Your task to perform on an android device: change notifications settings Image 0: 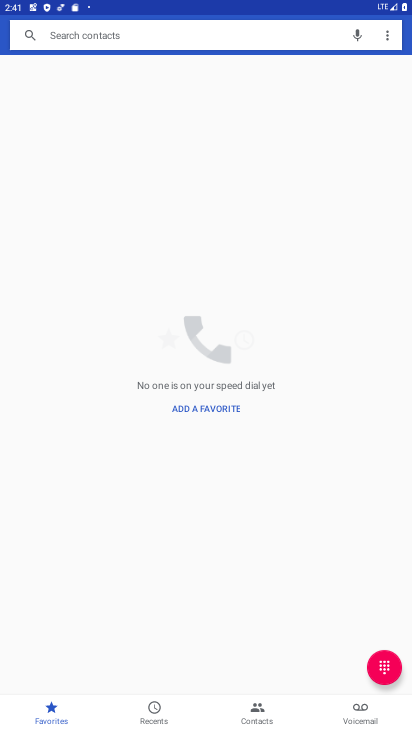
Step 0: press home button
Your task to perform on an android device: change notifications settings Image 1: 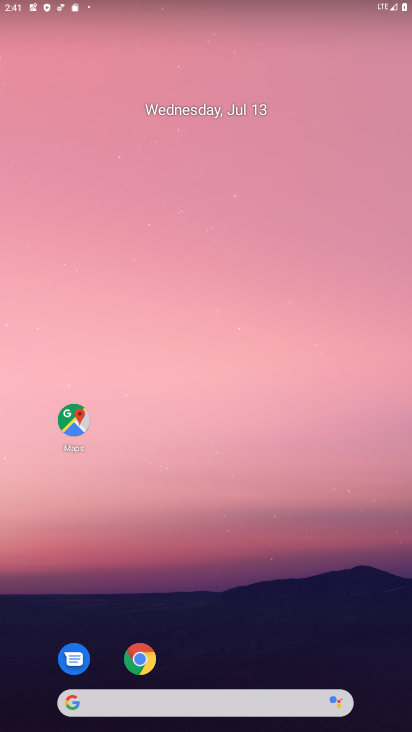
Step 1: drag from (387, 666) to (336, 84)
Your task to perform on an android device: change notifications settings Image 2: 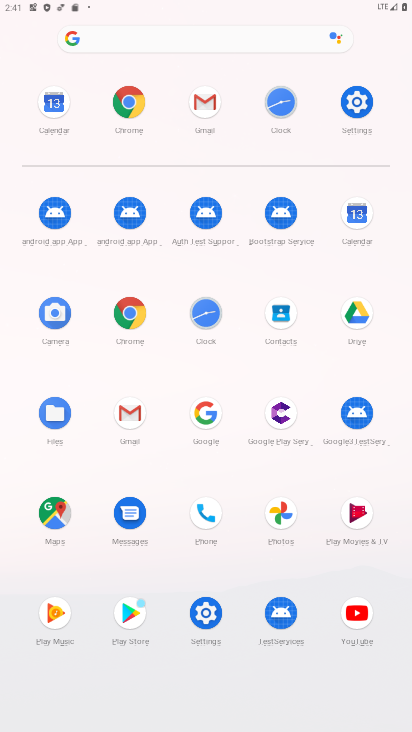
Step 2: click (206, 613)
Your task to perform on an android device: change notifications settings Image 3: 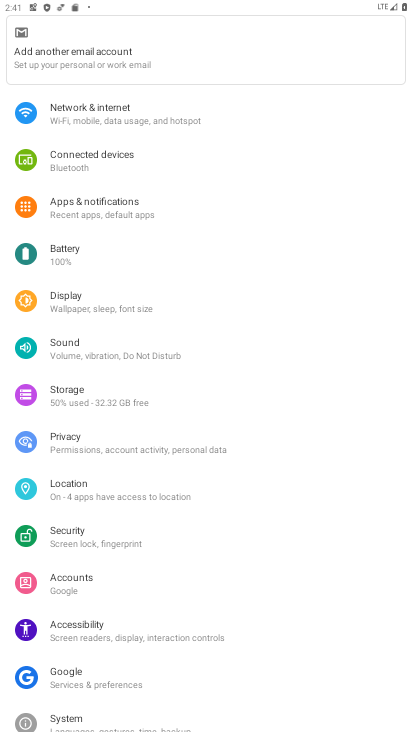
Step 3: click (106, 203)
Your task to perform on an android device: change notifications settings Image 4: 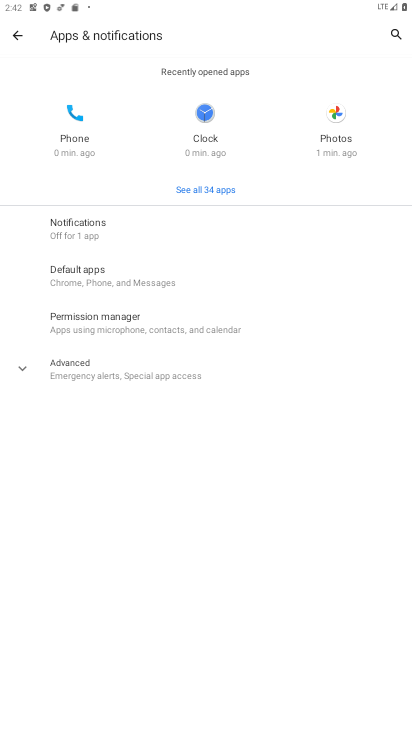
Step 4: click (69, 224)
Your task to perform on an android device: change notifications settings Image 5: 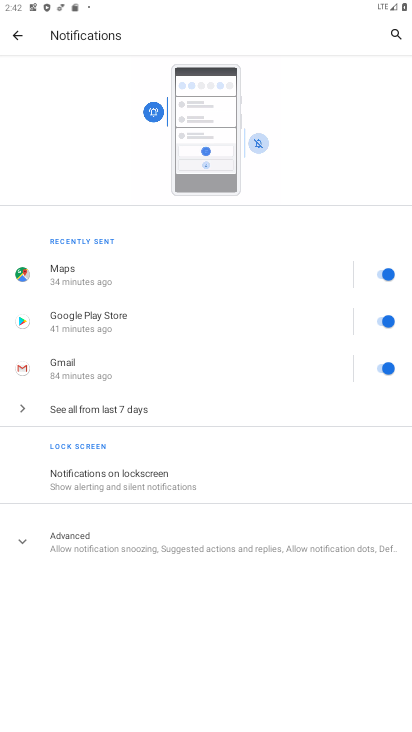
Step 5: click (19, 537)
Your task to perform on an android device: change notifications settings Image 6: 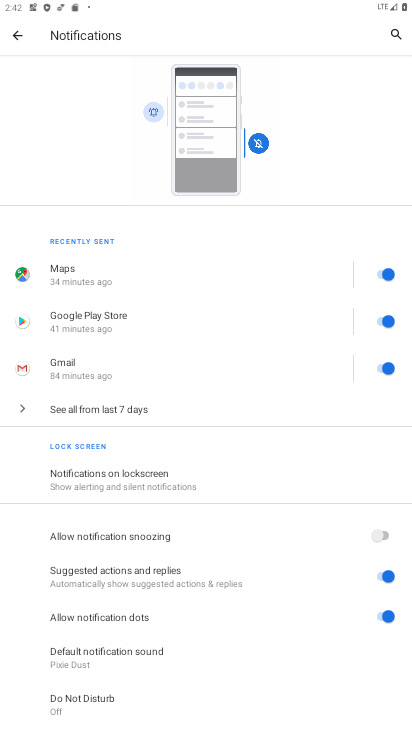
Step 6: click (377, 617)
Your task to perform on an android device: change notifications settings Image 7: 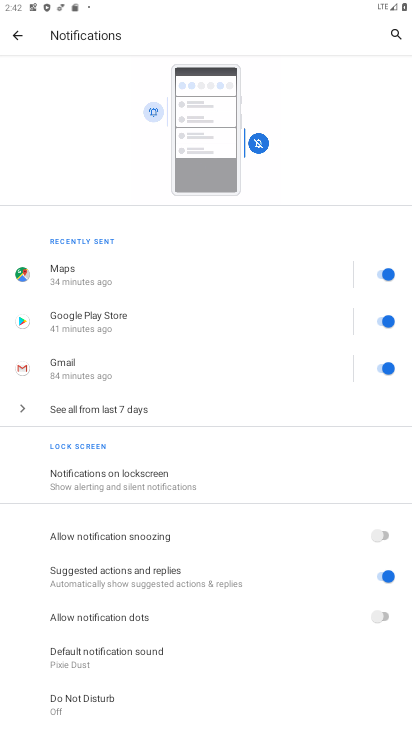
Step 7: click (384, 535)
Your task to perform on an android device: change notifications settings Image 8: 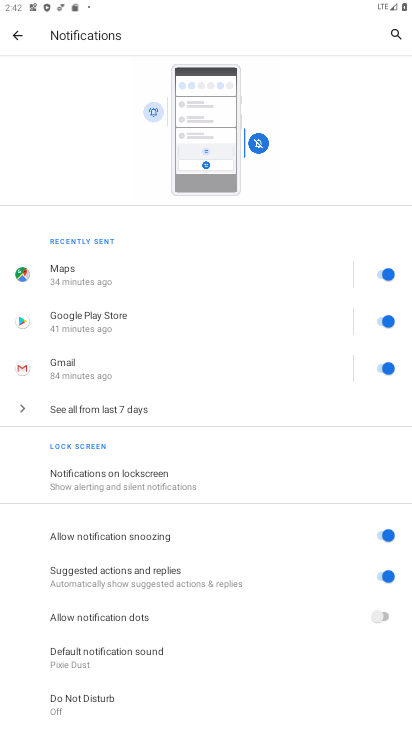
Step 8: task complete